Your task to perform on an android device: Open settings on Google Maps Image 0: 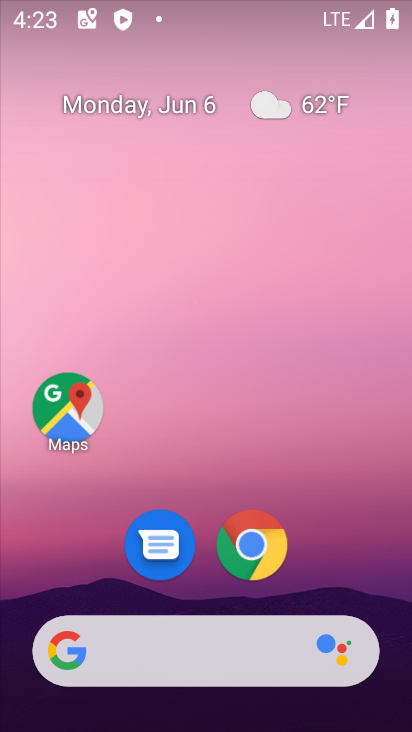
Step 0: drag from (209, 730) to (244, 21)
Your task to perform on an android device: Open settings on Google Maps Image 1: 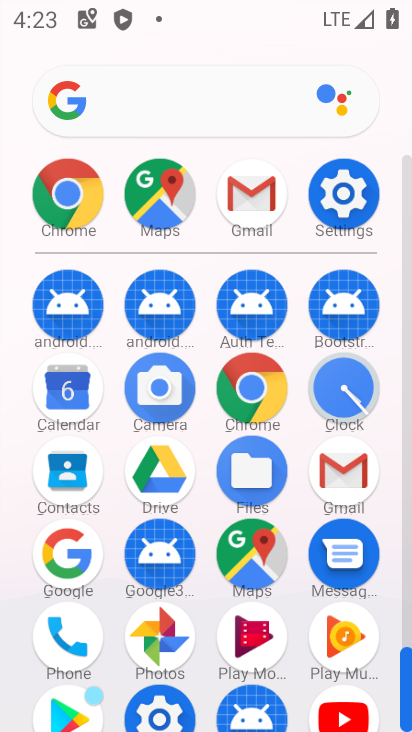
Step 1: click (247, 563)
Your task to perform on an android device: Open settings on Google Maps Image 2: 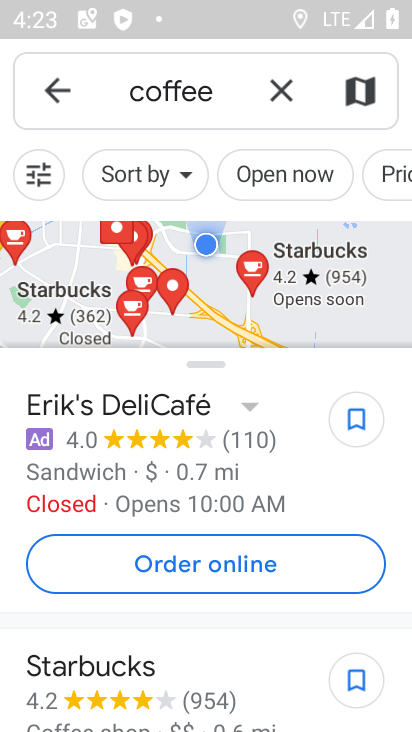
Step 2: click (55, 94)
Your task to perform on an android device: Open settings on Google Maps Image 3: 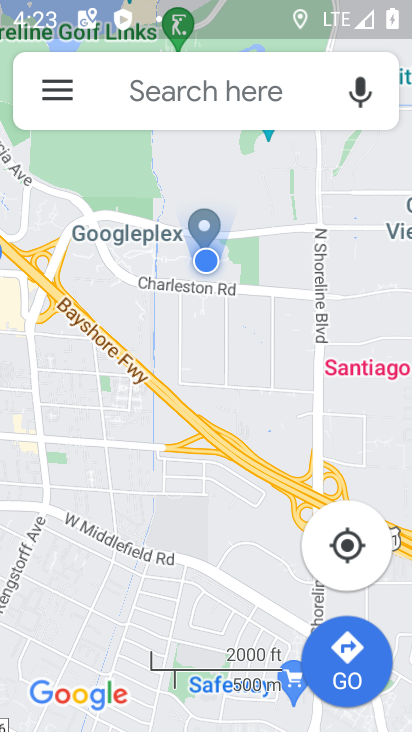
Step 3: click (52, 91)
Your task to perform on an android device: Open settings on Google Maps Image 4: 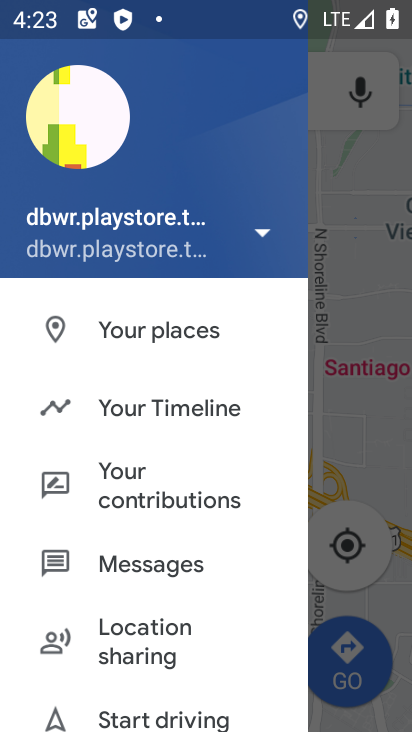
Step 4: drag from (153, 718) to (148, 283)
Your task to perform on an android device: Open settings on Google Maps Image 5: 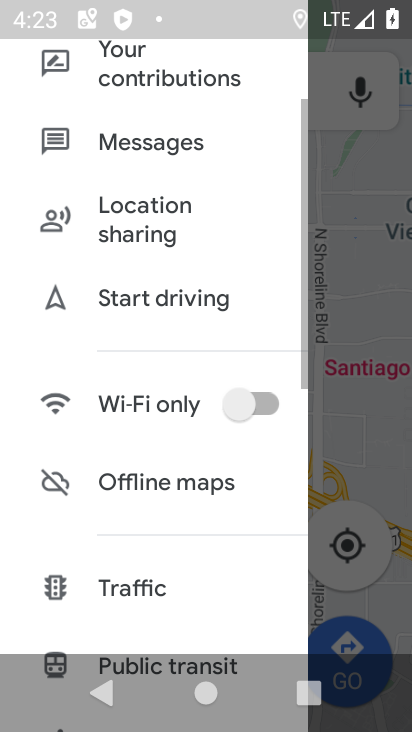
Step 5: drag from (137, 631) to (145, 294)
Your task to perform on an android device: Open settings on Google Maps Image 6: 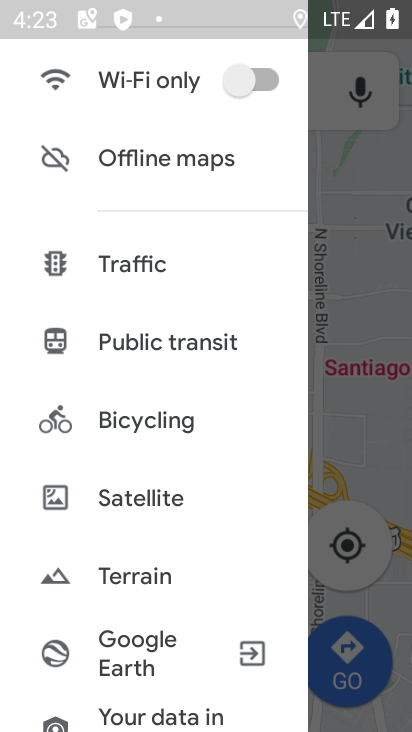
Step 6: drag from (136, 686) to (136, 270)
Your task to perform on an android device: Open settings on Google Maps Image 7: 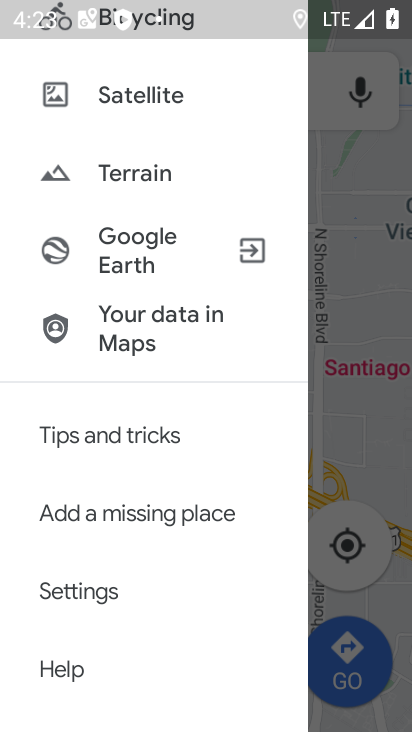
Step 7: click (76, 589)
Your task to perform on an android device: Open settings on Google Maps Image 8: 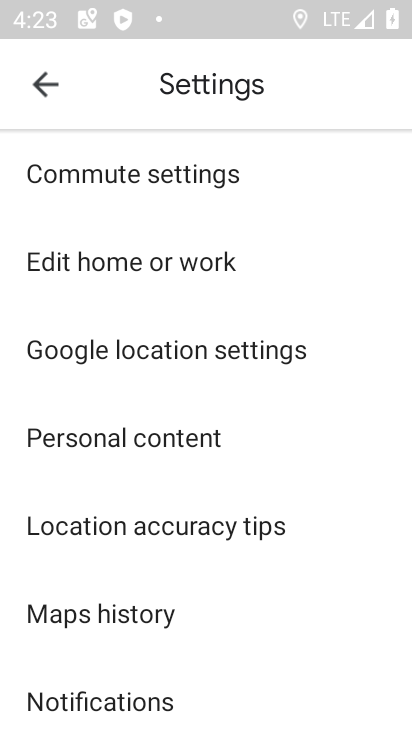
Step 8: task complete